Your task to perform on an android device: Open calendar and show me the first week of next month Image 0: 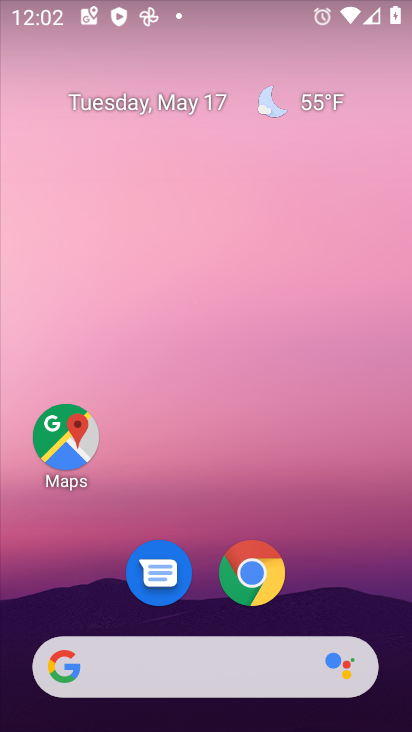
Step 0: drag from (355, 547) to (249, 148)
Your task to perform on an android device: Open calendar and show me the first week of next month Image 1: 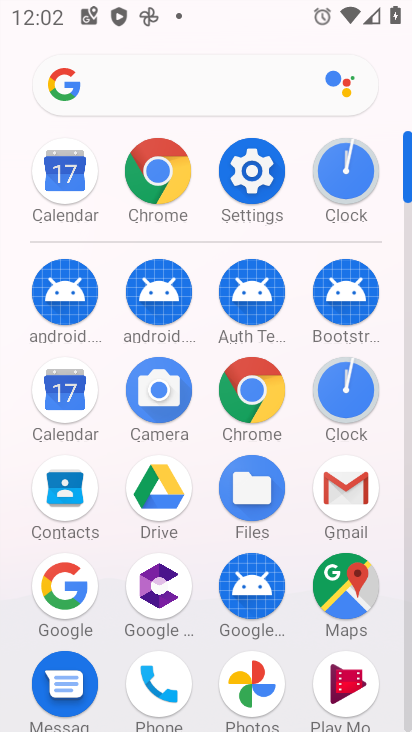
Step 1: click (67, 395)
Your task to perform on an android device: Open calendar and show me the first week of next month Image 2: 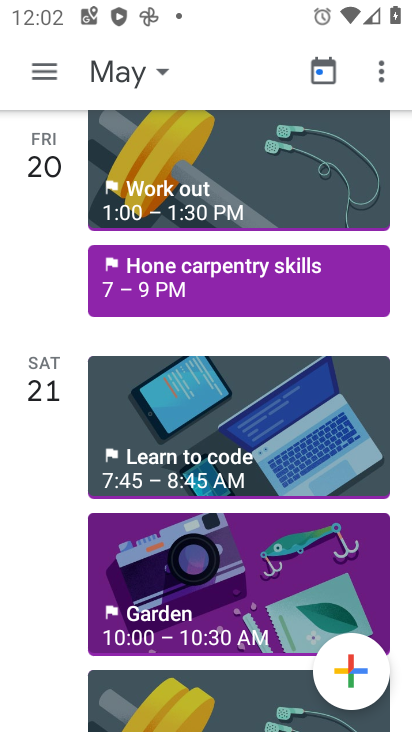
Step 2: click (56, 78)
Your task to perform on an android device: Open calendar and show me the first week of next month Image 3: 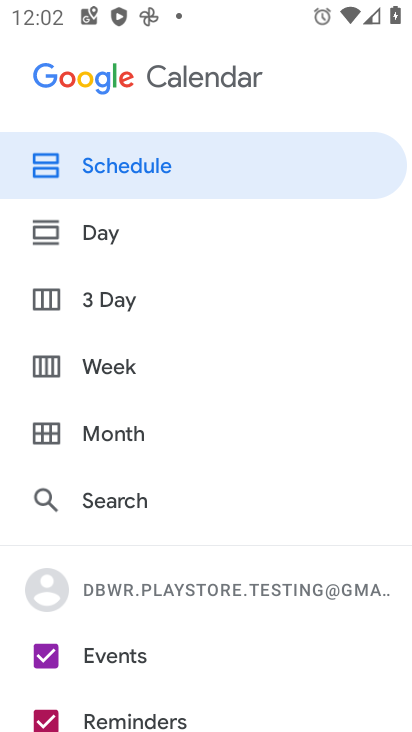
Step 3: click (132, 378)
Your task to perform on an android device: Open calendar and show me the first week of next month Image 4: 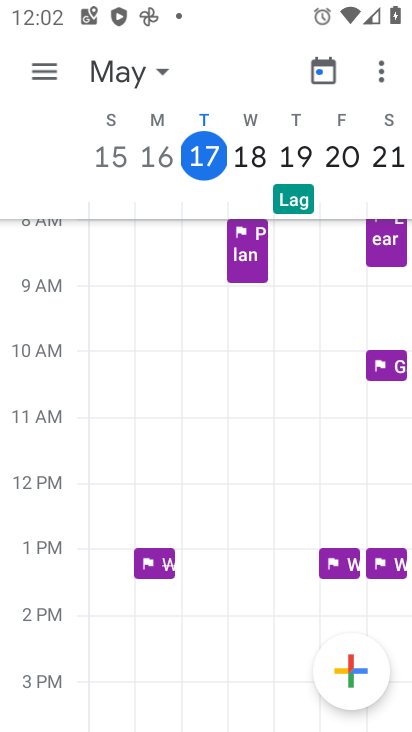
Step 4: click (133, 77)
Your task to perform on an android device: Open calendar and show me the first week of next month Image 5: 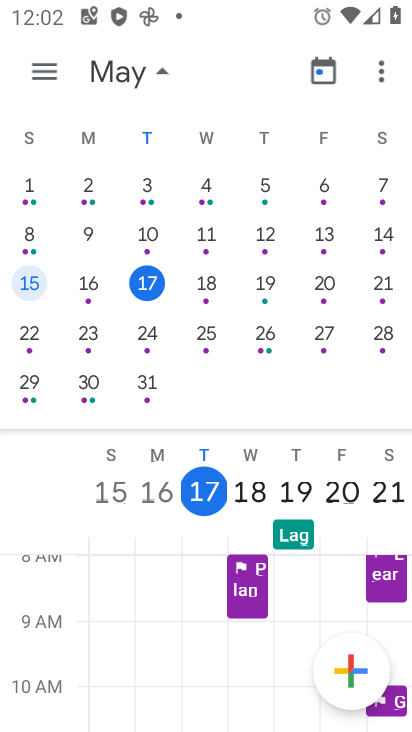
Step 5: drag from (365, 314) to (13, 247)
Your task to perform on an android device: Open calendar and show me the first week of next month Image 6: 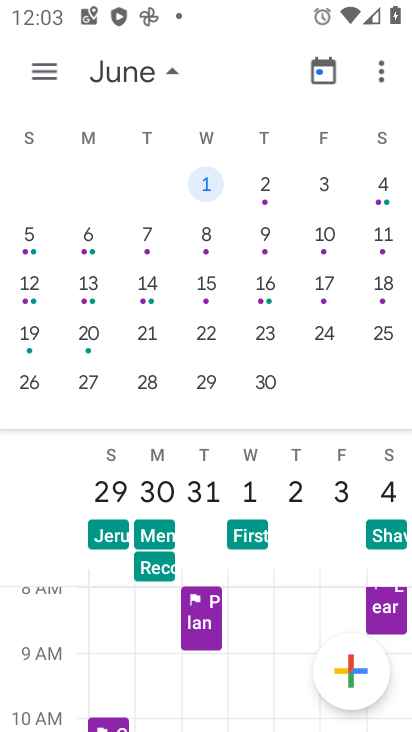
Step 6: click (143, 232)
Your task to perform on an android device: Open calendar and show me the first week of next month Image 7: 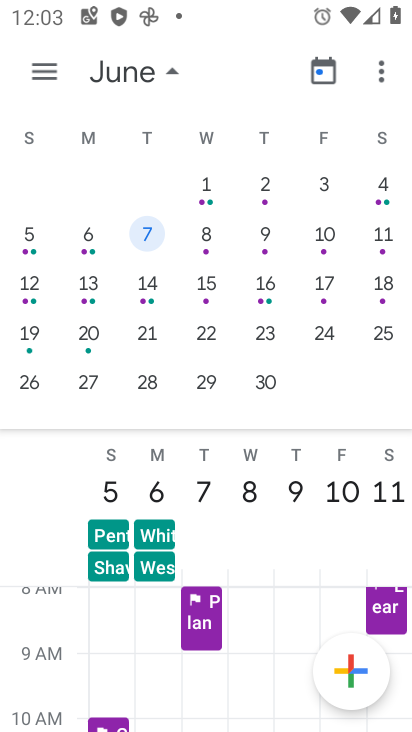
Step 7: click (92, 238)
Your task to perform on an android device: Open calendar and show me the first week of next month Image 8: 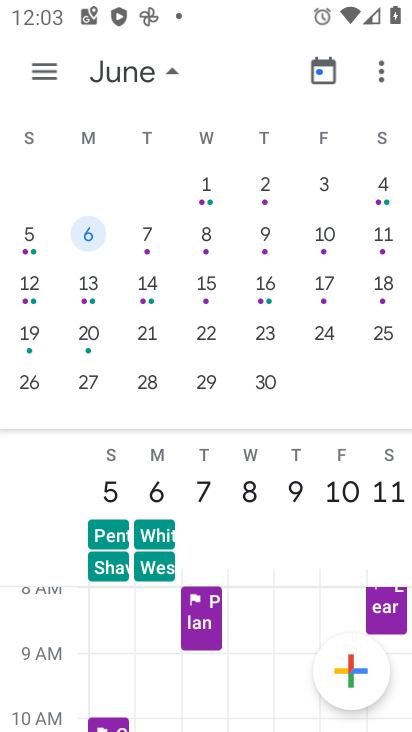
Step 8: task complete